Your task to perform on an android device: What's the price of the TCL TV? Image 0: 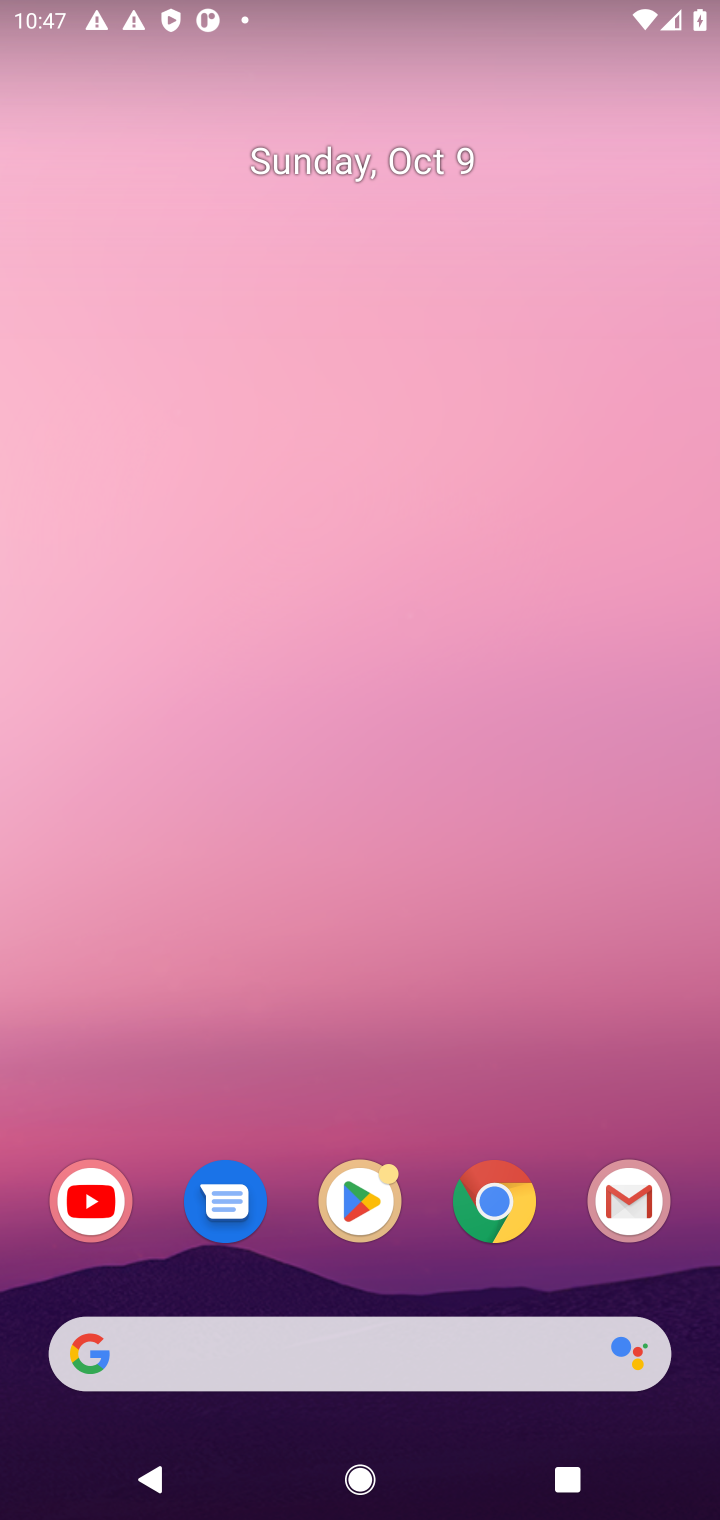
Step 0: task complete